Your task to perform on an android device: What's the weather going to be tomorrow? Image 0: 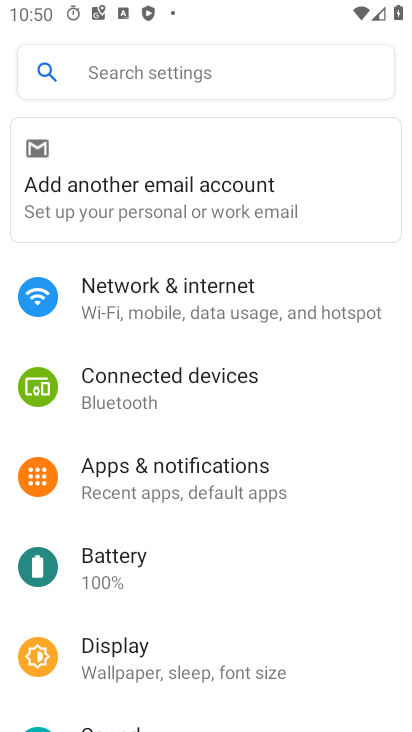
Step 0: press home button
Your task to perform on an android device: What's the weather going to be tomorrow? Image 1: 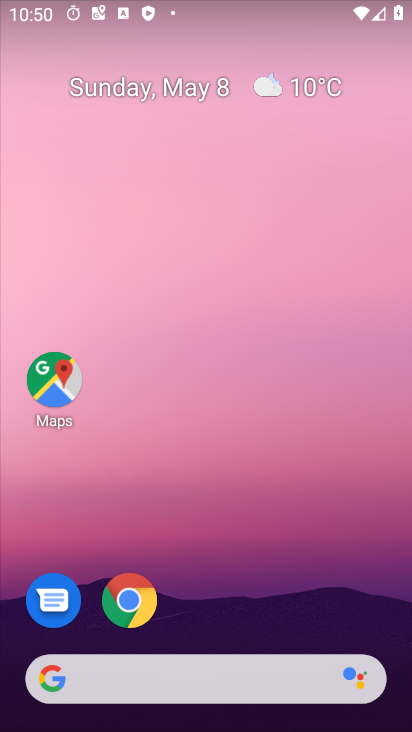
Step 1: drag from (234, 620) to (170, 29)
Your task to perform on an android device: What's the weather going to be tomorrow? Image 2: 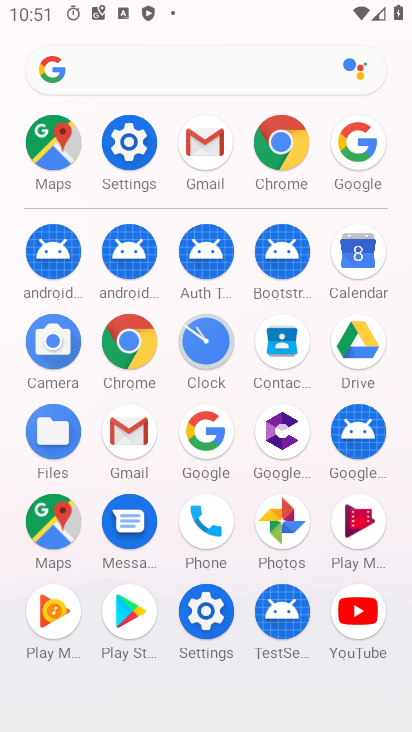
Step 2: click (213, 434)
Your task to perform on an android device: What's the weather going to be tomorrow? Image 3: 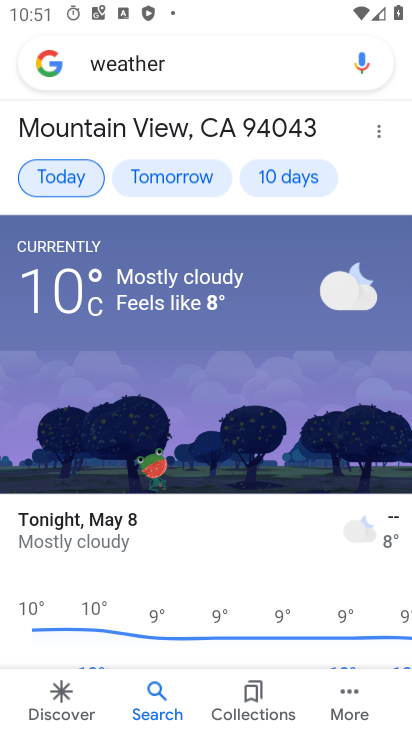
Step 3: click (160, 179)
Your task to perform on an android device: What's the weather going to be tomorrow? Image 4: 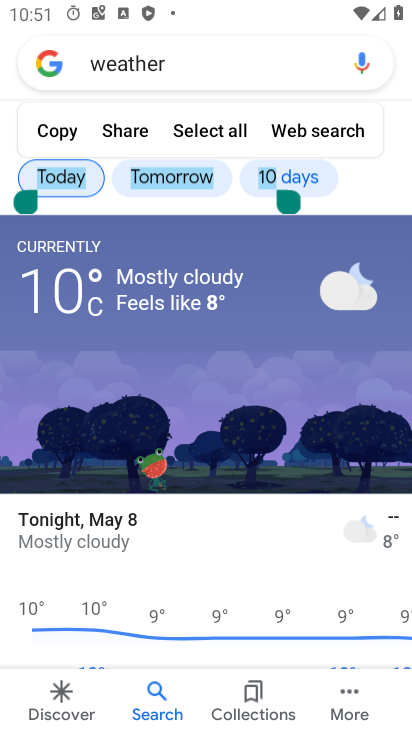
Step 4: click (173, 200)
Your task to perform on an android device: What's the weather going to be tomorrow? Image 5: 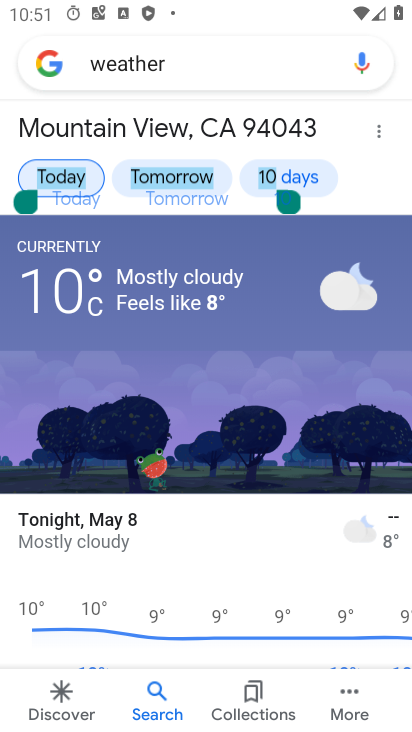
Step 5: click (173, 187)
Your task to perform on an android device: What's the weather going to be tomorrow? Image 6: 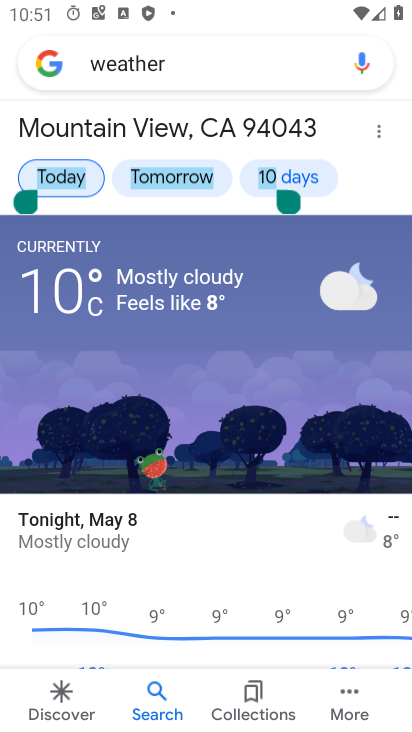
Step 6: click (377, 188)
Your task to perform on an android device: What's the weather going to be tomorrow? Image 7: 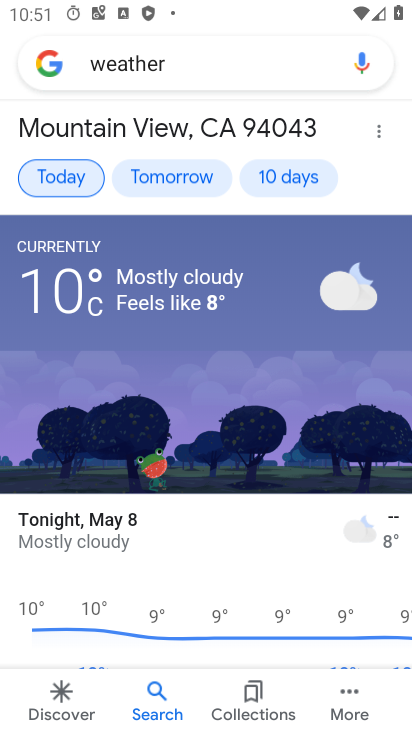
Step 7: click (186, 168)
Your task to perform on an android device: What's the weather going to be tomorrow? Image 8: 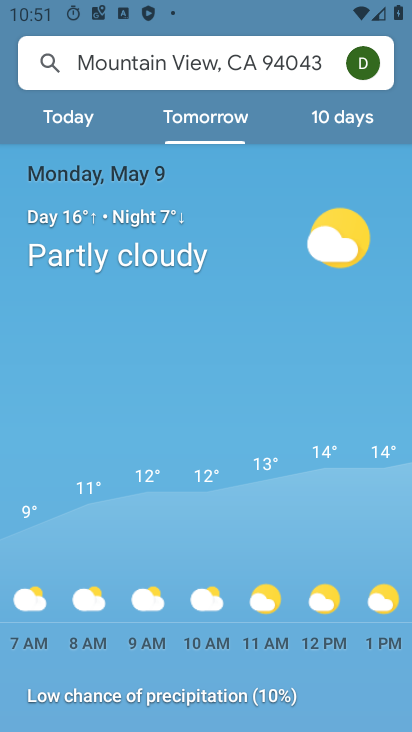
Step 8: task complete